Your task to perform on an android device: turn pop-ups off in chrome Image 0: 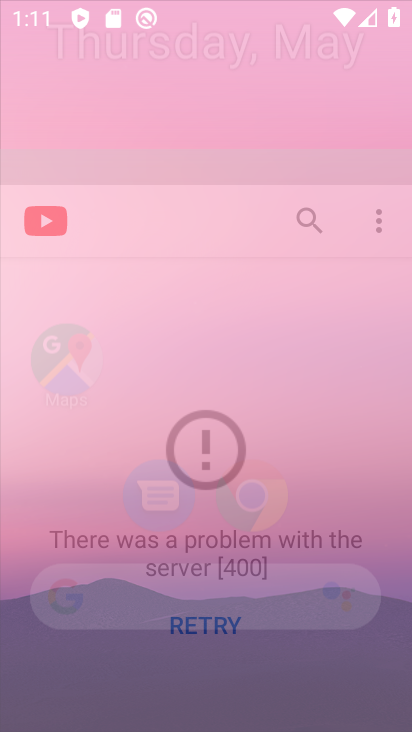
Step 0: click (245, 549)
Your task to perform on an android device: turn pop-ups off in chrome Image 1: 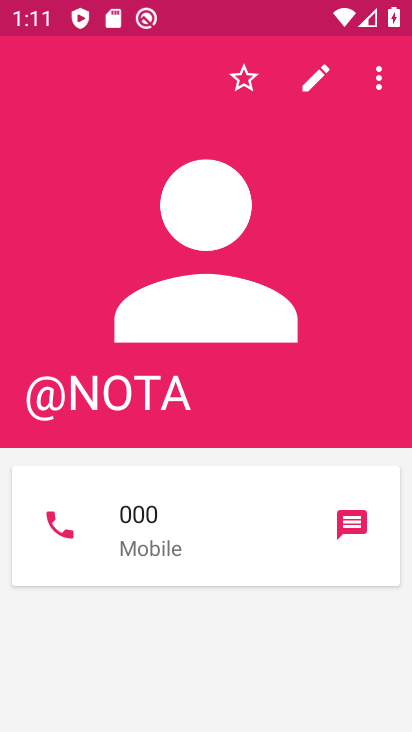
Step 1: press home button
Your task to perform on an android device: turn pop-ups off in chrome Image 2: 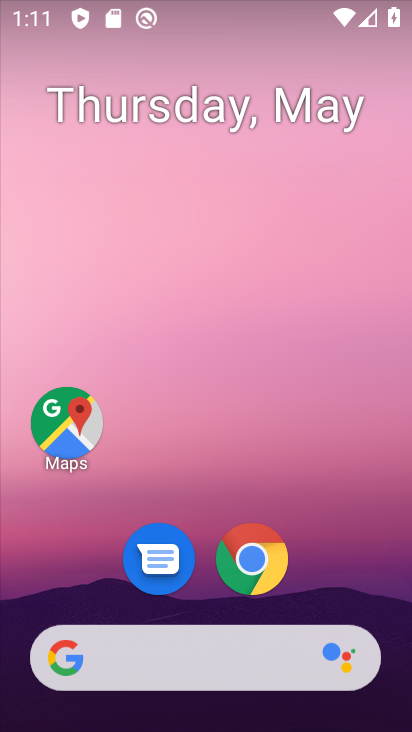
Step 2: click (245, 574)
Your task to perform on an android device: turn pop-ups off in chrome Image 3: 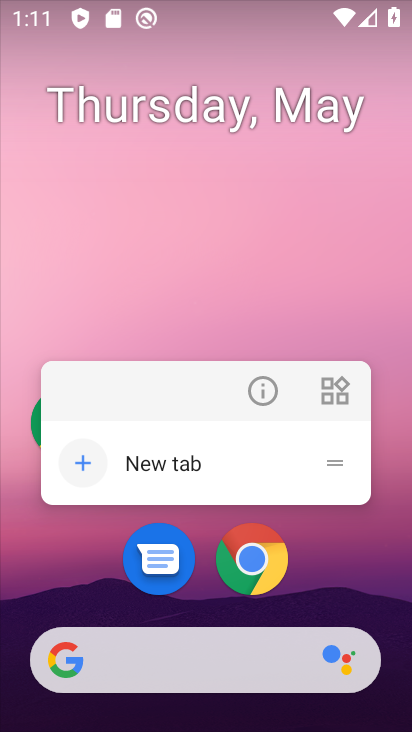
Step 3: click (262, 564)
Your task to perform on an android device: turn pop-ups off in chrome Image 4: 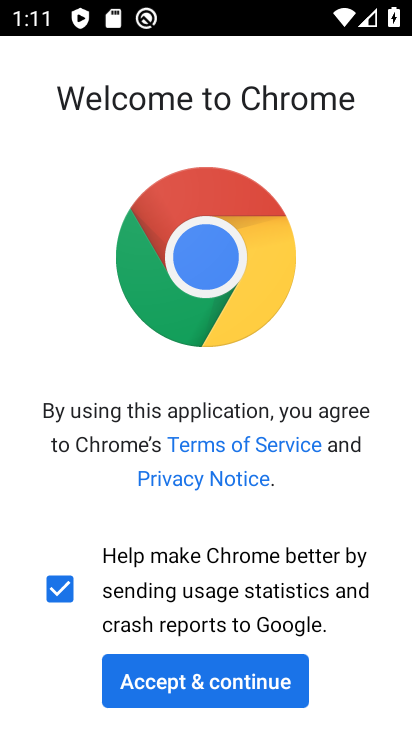
Step 4: click (240, 680)
Your task to perform on an android device: turn pop-ups off in chrome Image 5: 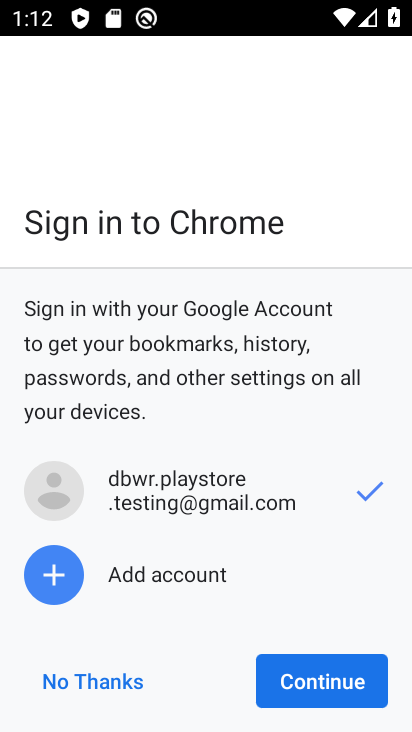
Step 5: click (371, 682)
Your task to perform on an android device: turn pop-ups off in chrome Image 6: 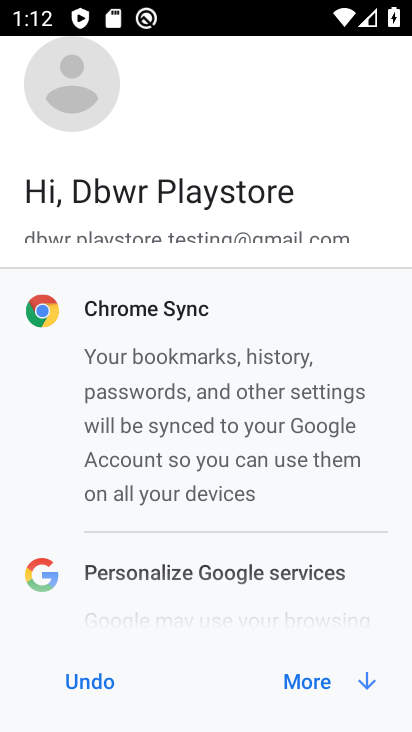
Step 6: click (369, 682)
Your task to perform on an android device: turn pop-ups off in chrome Image 7: 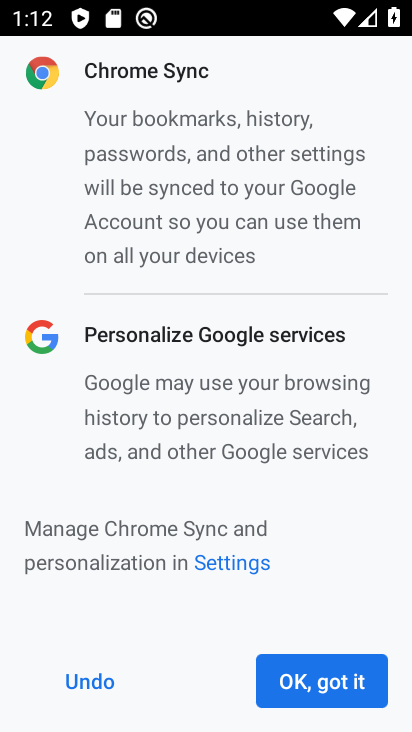
Step 7: click (365, 683)
Your task to perform on an android device: turn pop-ups off in chrome Image 8: 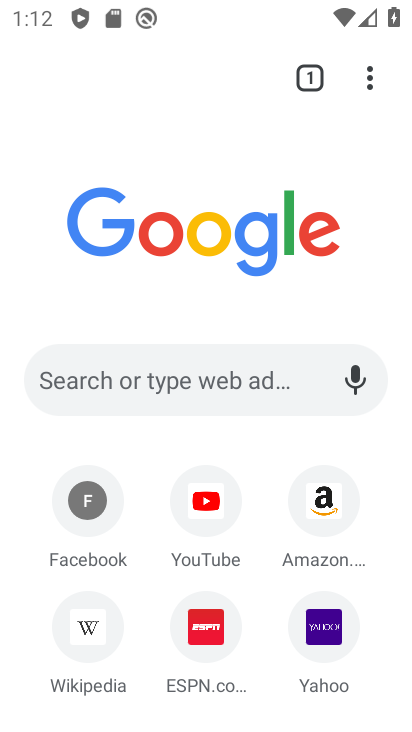
Step 8: drag from (375, 81) to (225, 644)
Your task to perform on an android device: turn pop-ups off in chrome Image 9: 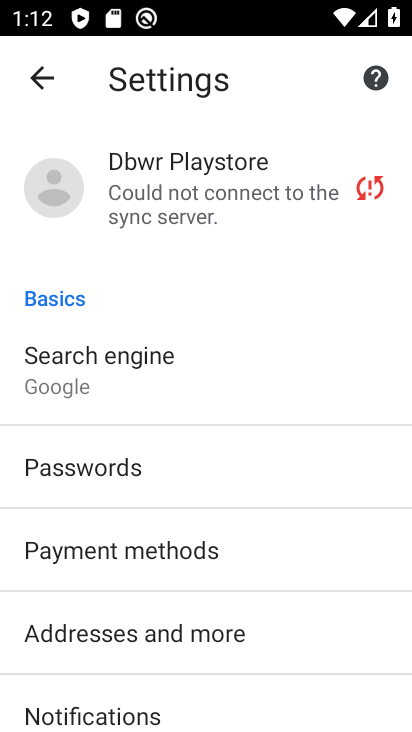
Step 9: drag from (286, 657) to (359, 276)
Your task to perform on an android device: turn pop-ups off in chrome Image 10: 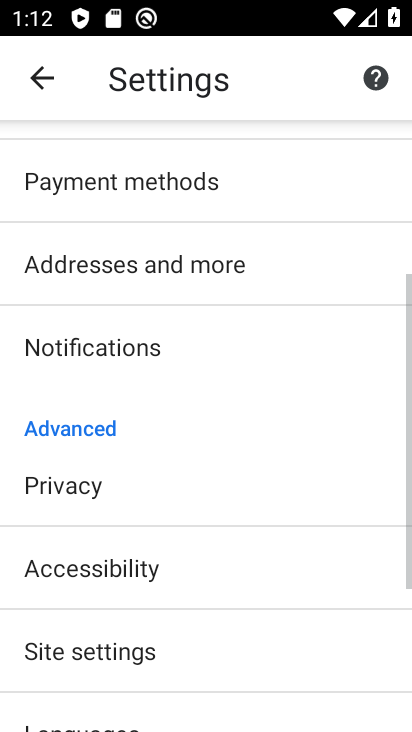
Step 10: click (206, 653)
Your task to perform on an android device: turn pop-ups off in chrome Image 11: 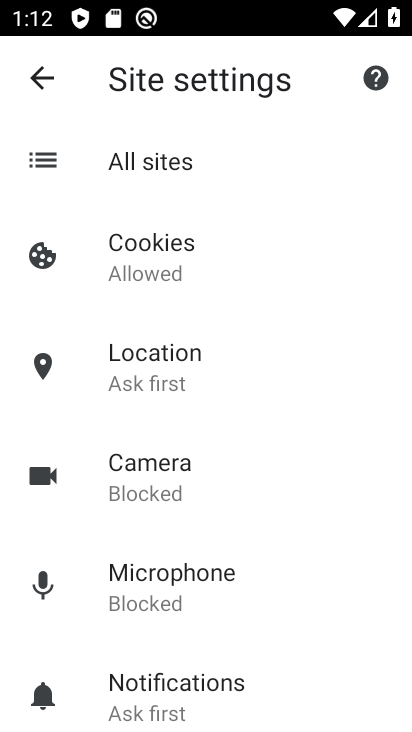
Step 11: drag from (226, 646) to (337, 281)
Your task to perform on an android device: turn pop-ups off in chrome Image 12: 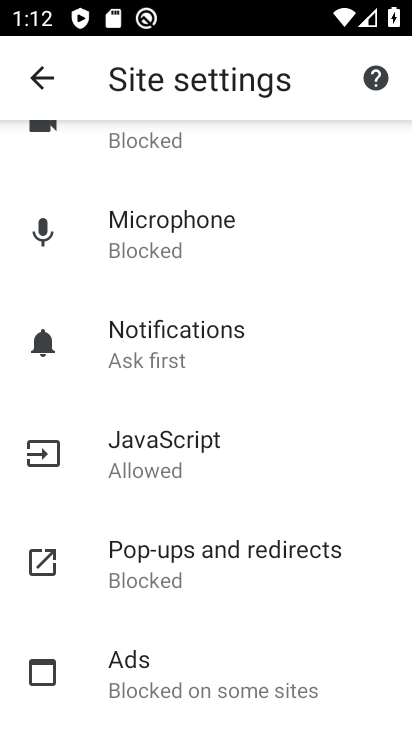
Step 12: click (273, 578)
Your task to perform on an android device: turn pop-ups off in chrome Image 13: 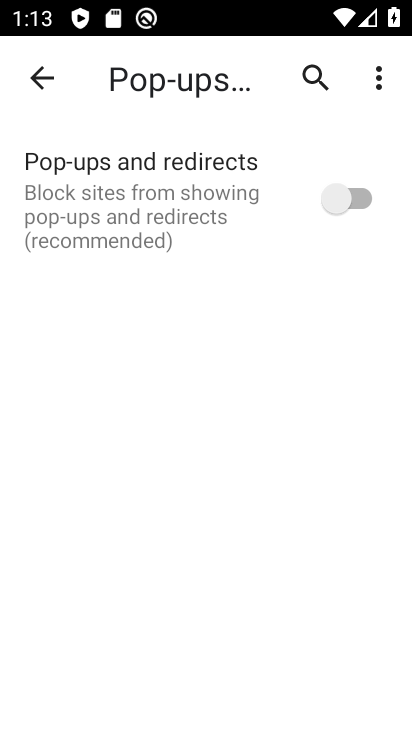
Step 13: task complete